Your task to perform on an android device: stop showing notifications on the lock screen Image 0: 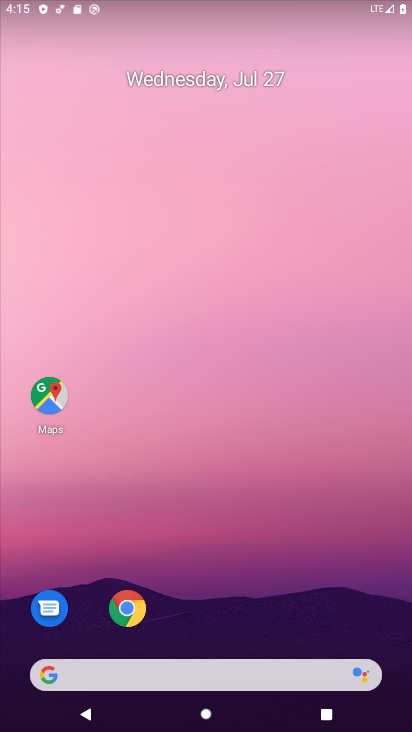
Step 0: click (209, 194)
Your task to perform on an android device: stop showing notifications on the lock screen Image 1: 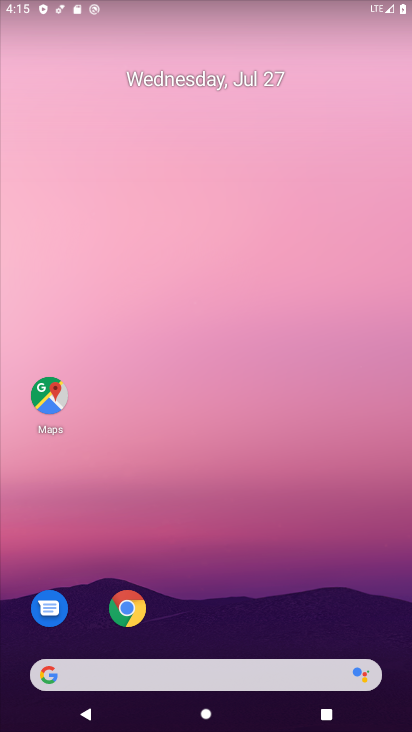
Step 1: drag from (243, 507) to (231, 229)
Your task to perform on an android device: stop showing notifications on the lock screen Image 2: 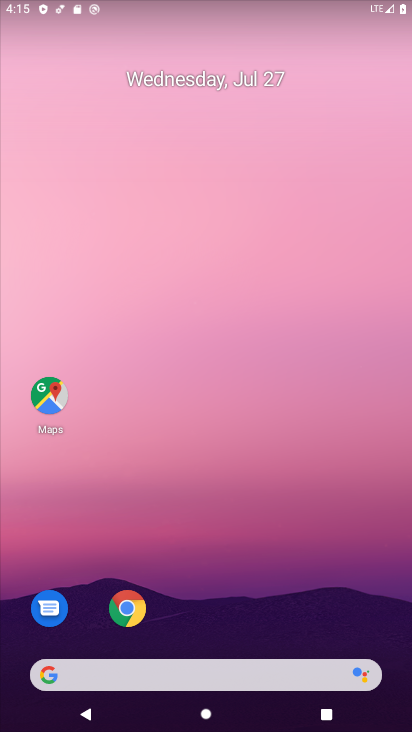
Step 2: drag from (248, 637) to (205, 226)
Your task to perform on an android device: stop showing notifications on the lock screen Image 3: 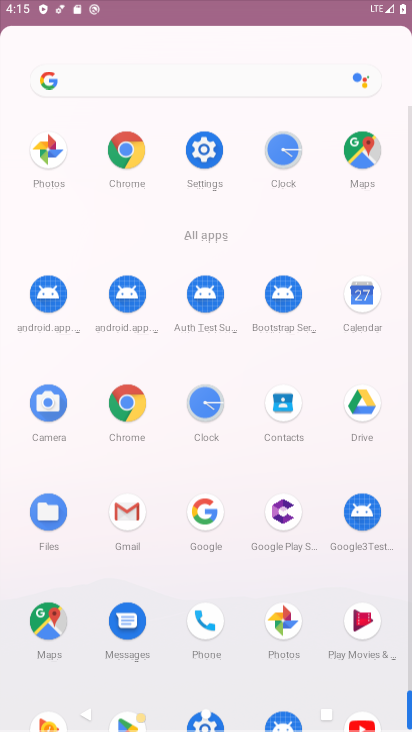
Step 3: drag from (202, 601) to (158, 271)
Your task to perform on an android device: stop showing notifications on the lock screen Image 4: 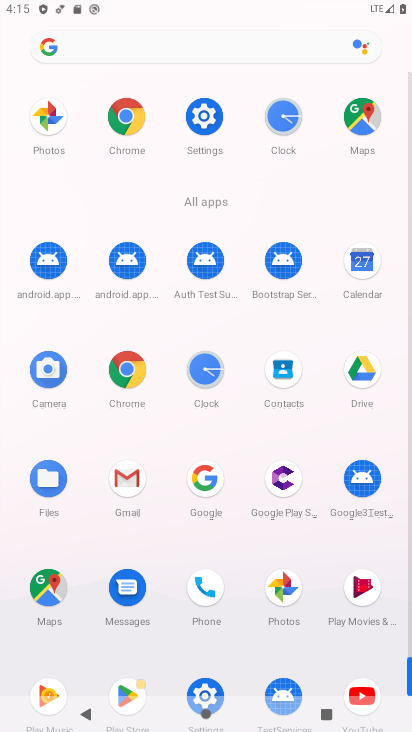
Step 4: drag from (213, 589) to (185, 261)
Your task to perform on an android device: stop showing notifications on the lock screen Image 5: 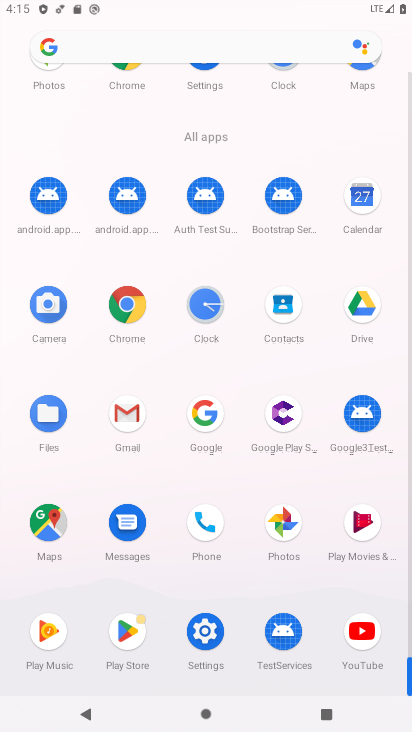
Step 5: click (205, 625)
Your task to perform on an android device: stop showing notifications on the lock screen Image 6: 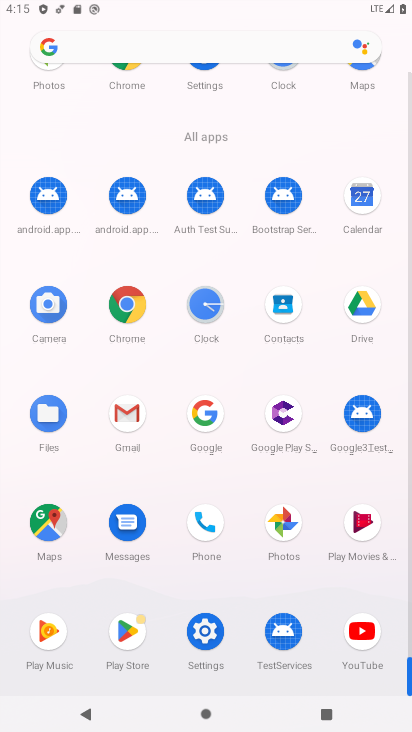
Step 6: click (205, 625)
Your task to perform on an android device: stop showing notifications on the lock screen Image 7: 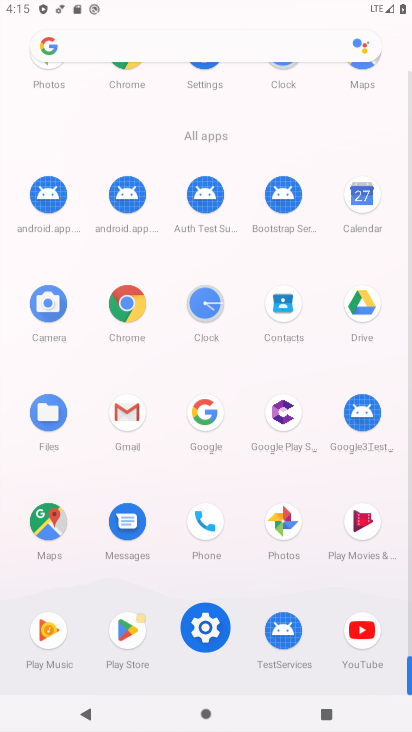
Step 7: click (204, 626)
Your task to perform on an android device: stop showing notifications on the lock screen Image 8: 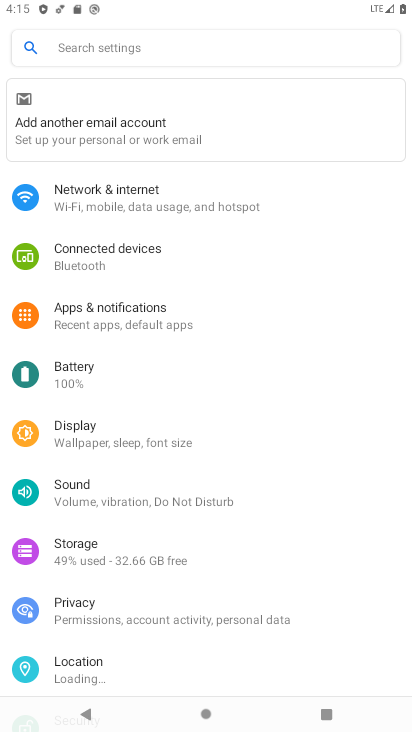
Step 8: click (116, 321)
Your task to perform on an android device: stop showing notifications on the lock screen Image 9: 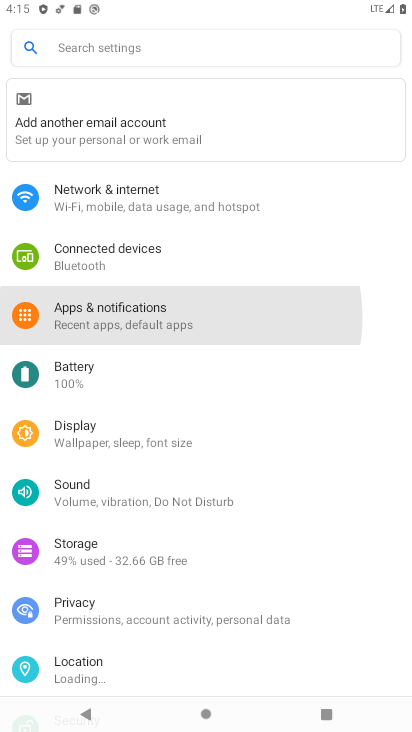
Step 9: click (115, 320)
Your task to perform on an android device: stop showing notifications on the lock screen Image 10: 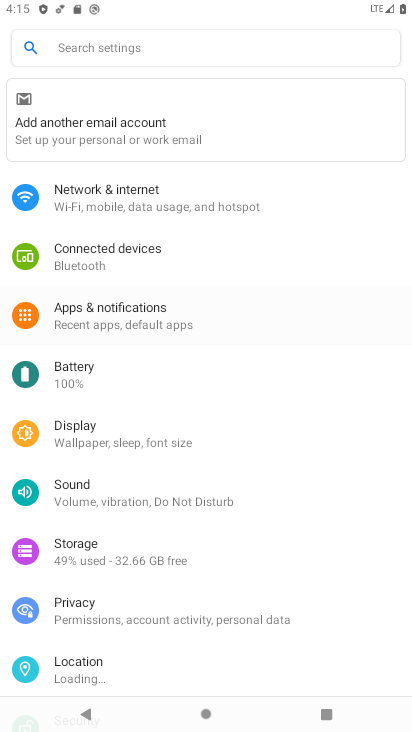
Step 10: click (115, 320)
Your task to perform on an android device: stop showing notifications on the lock screen Image 11: 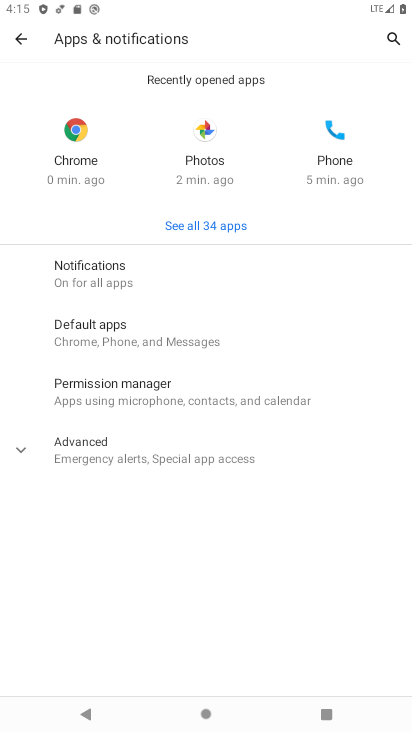
Step 11: click (90, 277)
Your task to perform on an android device: stop showing notifications on the lock screen Image 12: 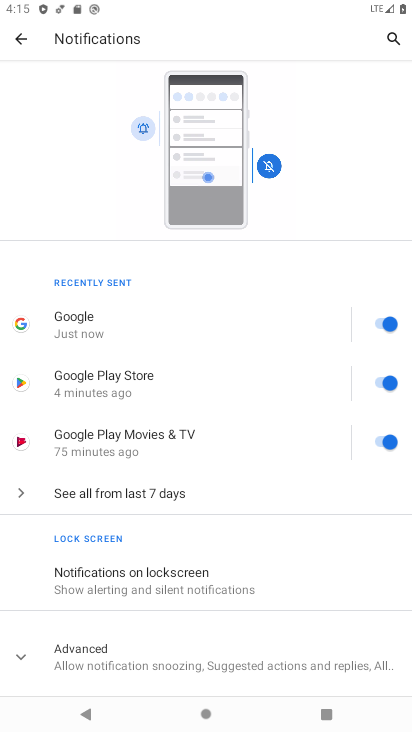
Step 12: click (124, 561)
Your task to perform on an android device: stop showing notifications on the lock screen Image 13: 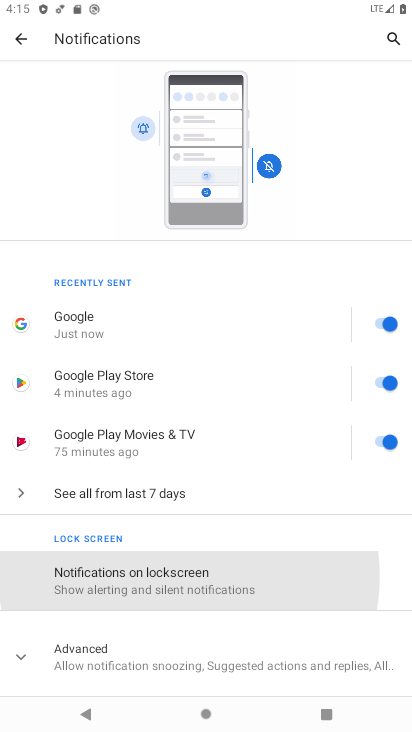
Step 13: click (123, 560)
Your task to perform on an android device: stop showing notifications on the lock screen Image 14: 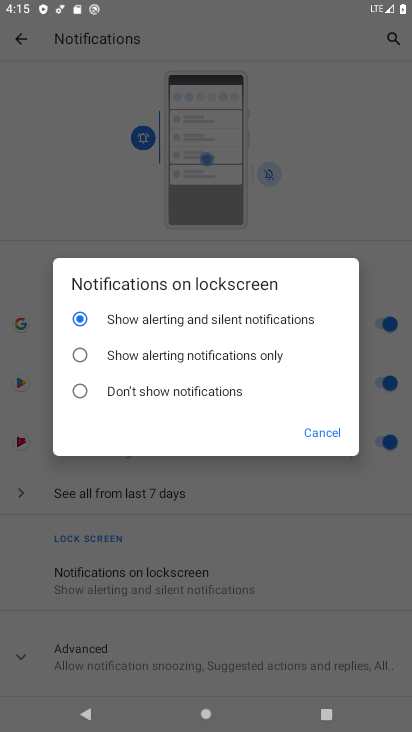
Step 14: click (77, 351)
Your task to perform on an android device: stop showing notifications on the lock screen Image 15: 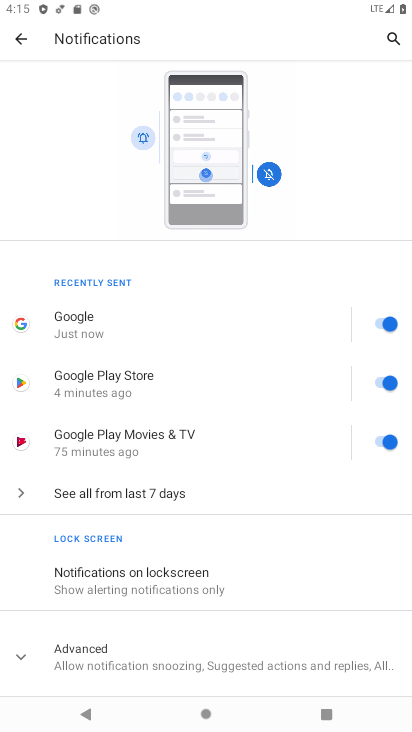
Step 15: task complete